Your task to perform on an android device: turn off priority inbox in the gmail app Image 0: 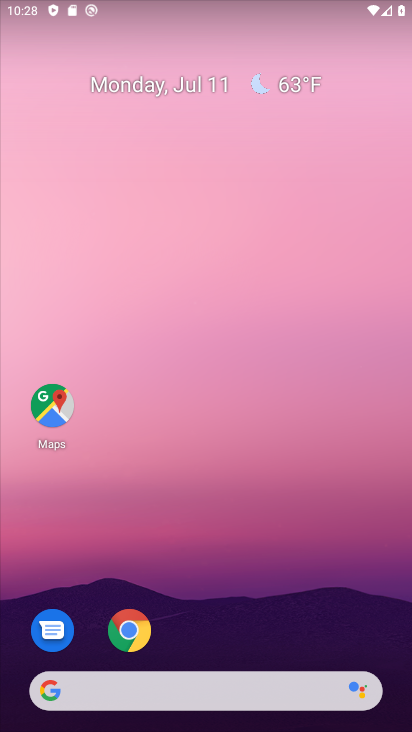
Step 0: drag from (377, 636) to (363, 148)
Your task to perform on an android device: turn off priority inbox in the gmail app Image 1: 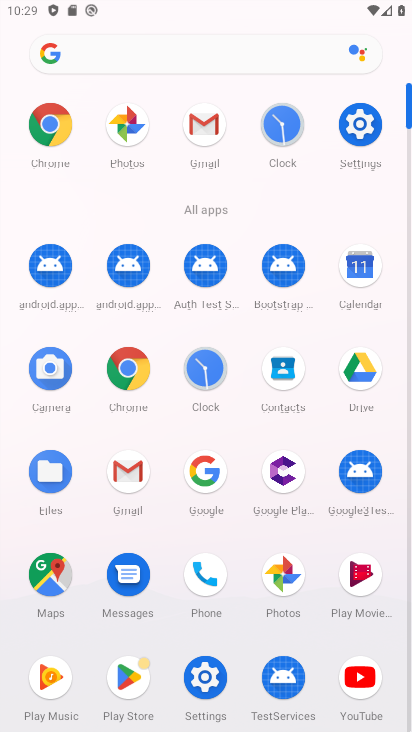
Step 1: click (128, 471)
Your task to perform on an android device: turn off priority inbox in the gmail app Image 2: 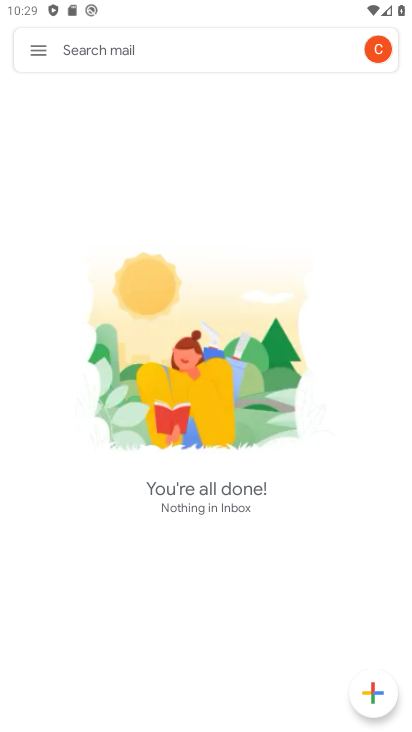
Step 2: click (36, 49)
Your task to perform on an android device: turn off priority inbox in the gmail app Image 3: 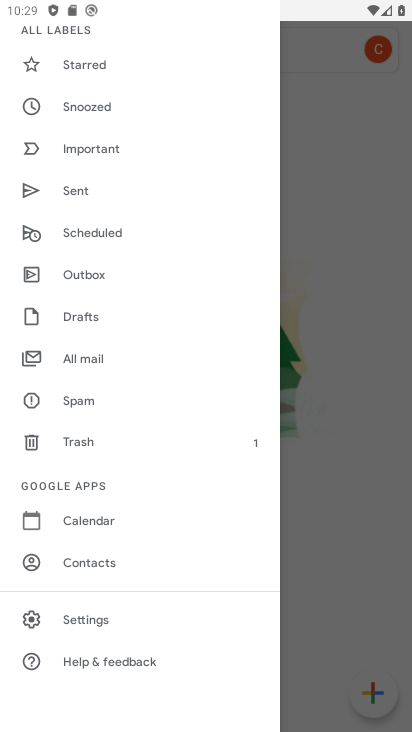
Step 3: click (95, 611)
Your task to perform on an android device: turn off priority inbox in the gmail app Image 4: 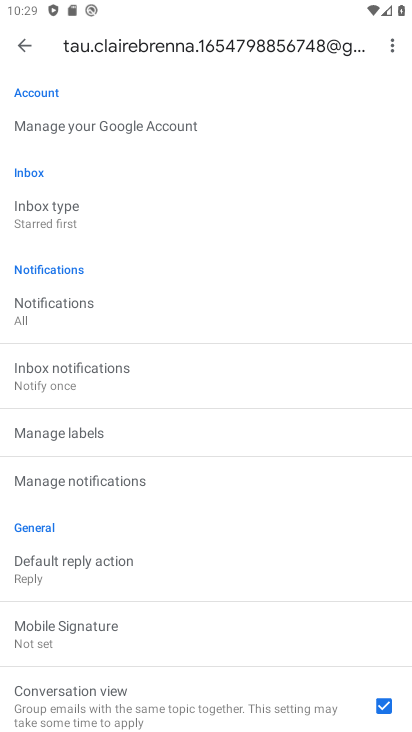
Step 4: drag from (173, 656) to (188, 202)
Your task to perform on an android device: turn off priority inbox in the gmail app Image 5: 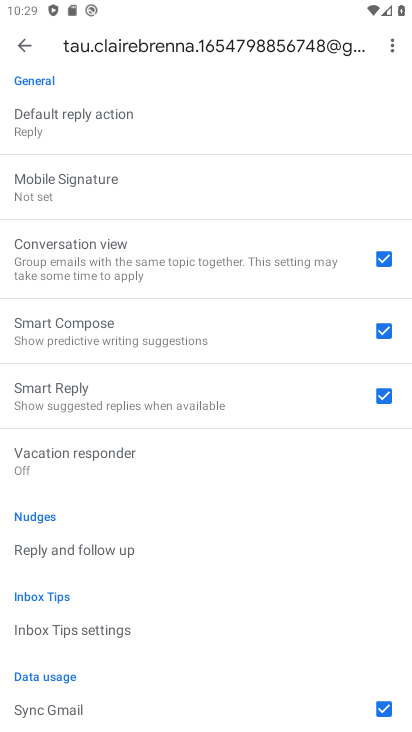
Step 5: drag from (205, 98) to (250, 511)
Your task to perform on an android device: turn off priority inbox in the gmail app Image 6: 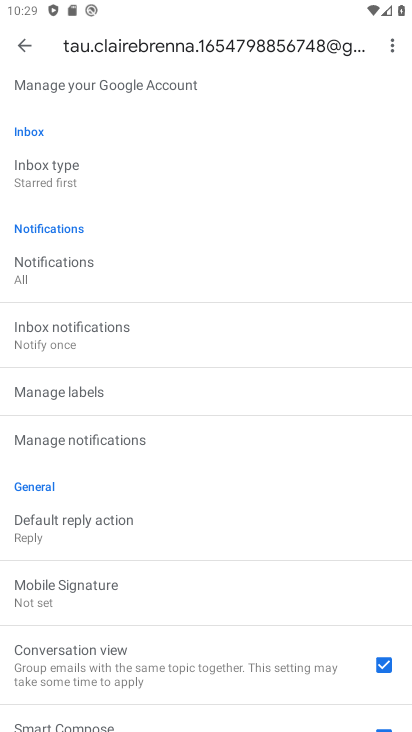
Step 6: drag from (194, 262) to (195, 495)
Your task to perform on an android device: turn off priority inbox in the gmail app Image 7: 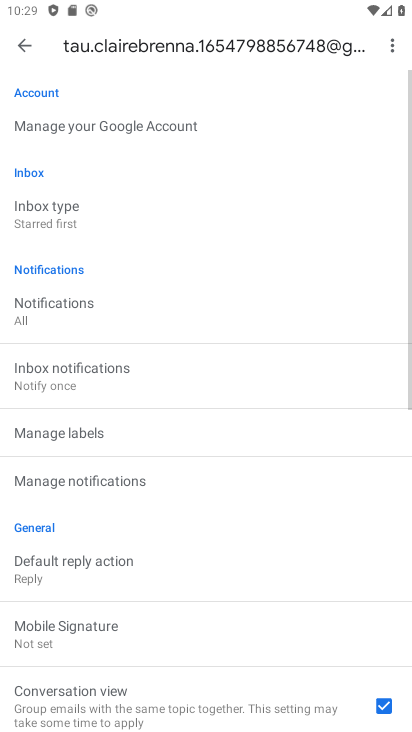
Step 7: click (35, 207)
Your task to perform on an android device: turn off priority inbox in the gmail app Image 8: 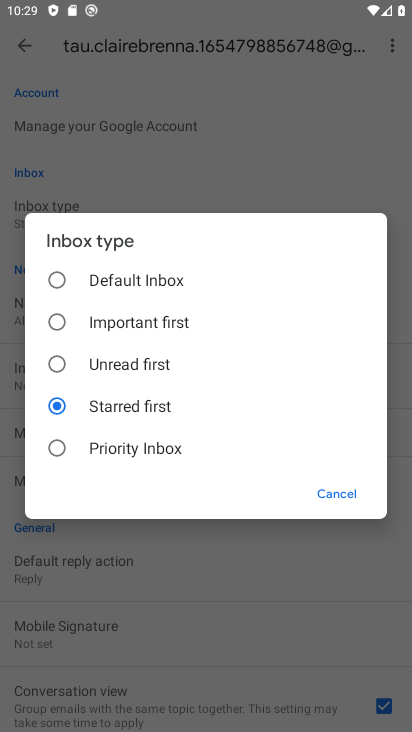
Step 8: task complete